Your task to perform on an android device: move an email to a new category in the gmail app Image 0: 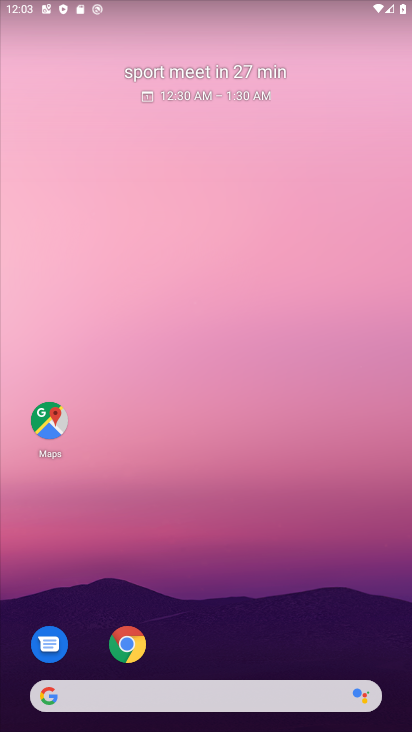
Step 0: drag from (200, 648) to (296, 122)
Your task to perform on an android device: move an email to a new category in the gmail app Image 1: 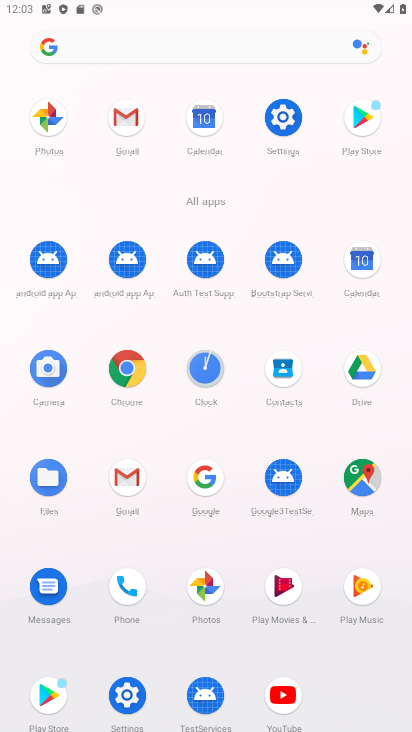
Step 1: click (119, 110)
Your task to perform on an android device: move an email to a new category in the gmail app Image 2: 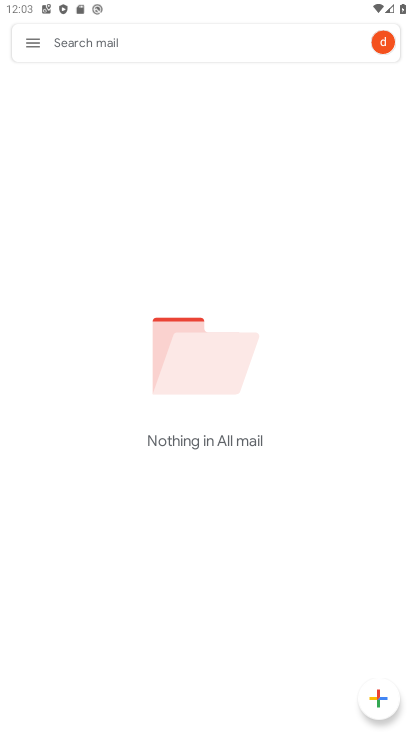
Step 2: click (37, 43)
Your task to perform on an android device: move an email to a new category in the gmail app Image 3: 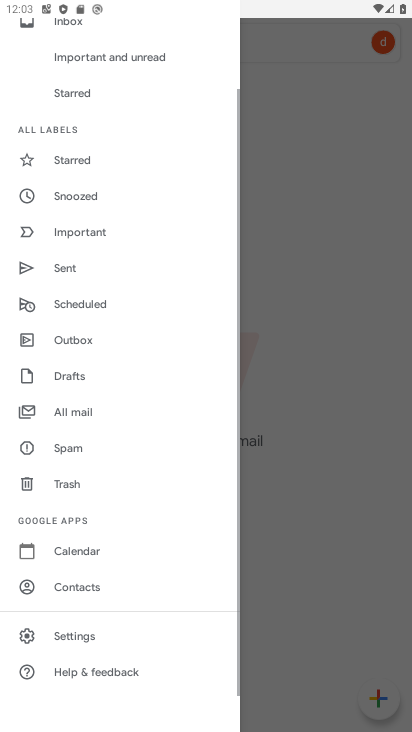
Step 3: task complete